Your task to perform on an android device: Go to Google maps Image 0: 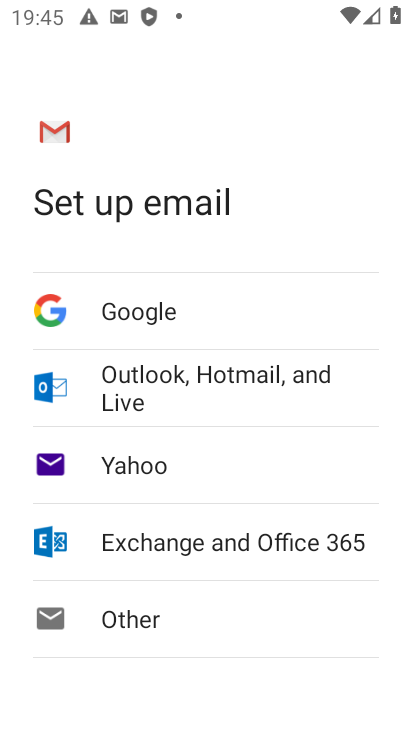
Step 0: press back button
Your task to perform on an android device: Go to Google maps Image 1: 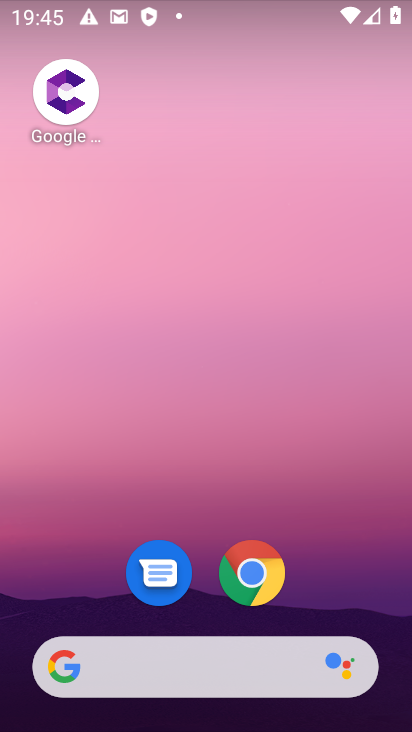
Step 1: drag from (241, 637) to (262, 156)
Your task to perform on an android device: Go to Google maps Image 2: 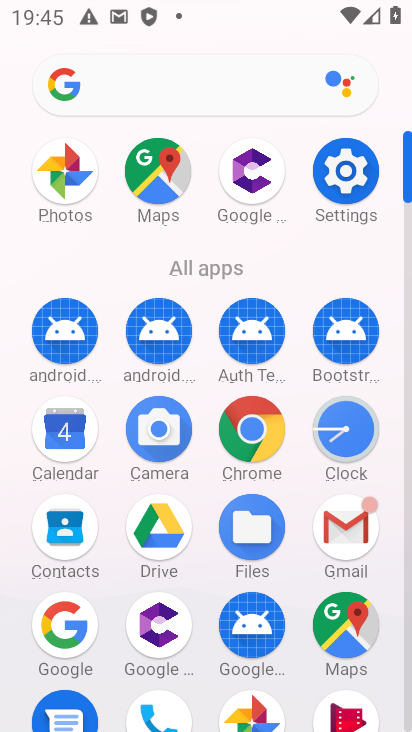
Step 2: click (162, 173)
Your task to perform on an android device: Go to Google maps Image 3: 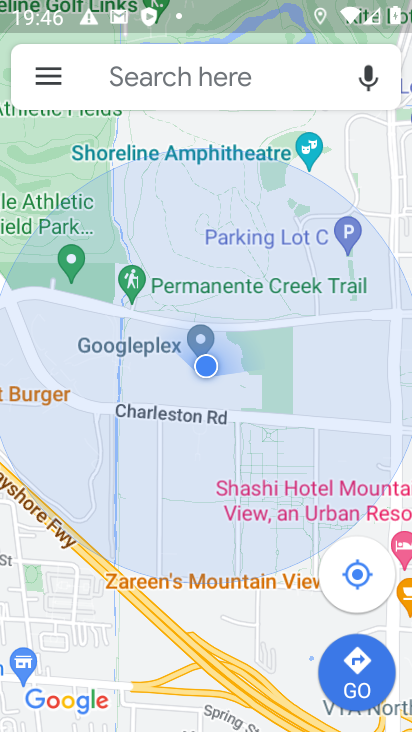
Step 3: task complete